Your task to perform on an android device: clear history in the chrome app Image 0: 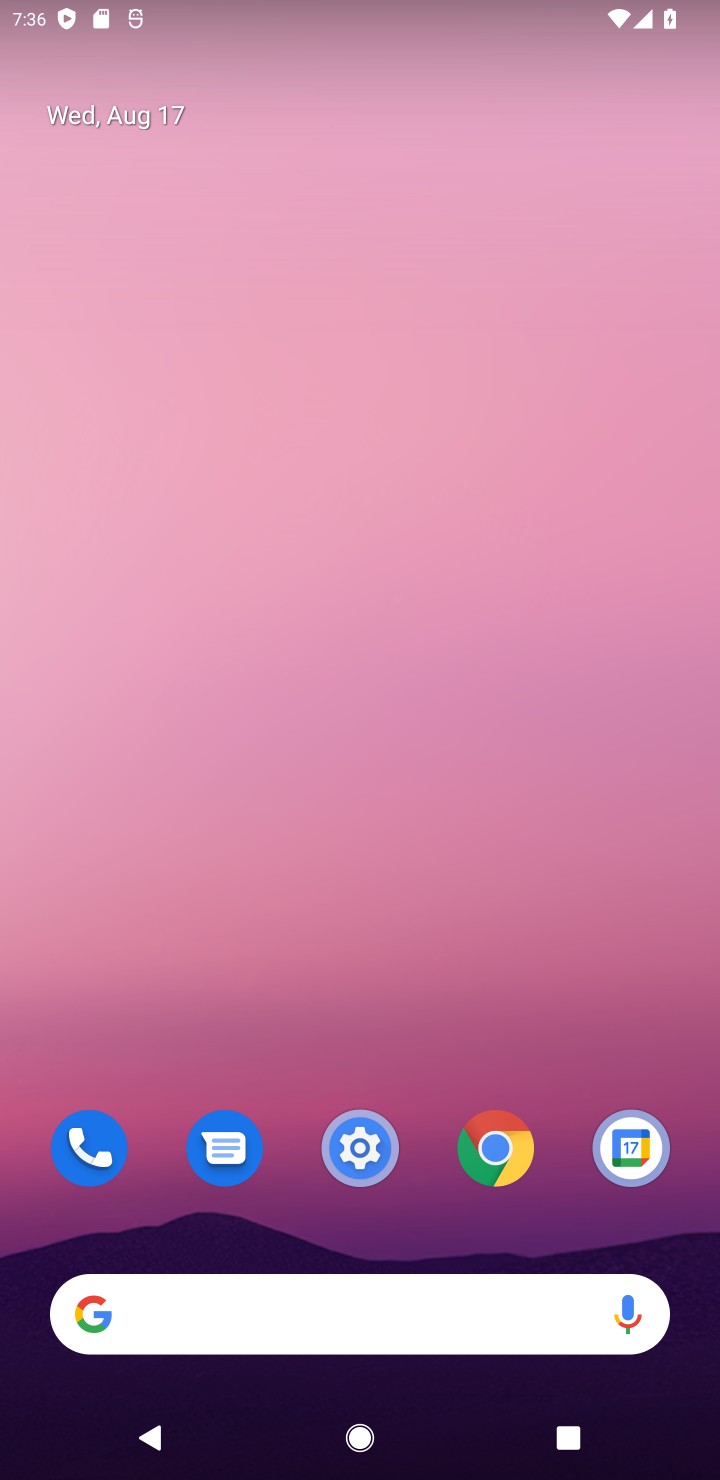
Step 0: drag from (302, 1150) to (302, 182)
Your task to perform on an android device: clear history in the chrome app Image 1: 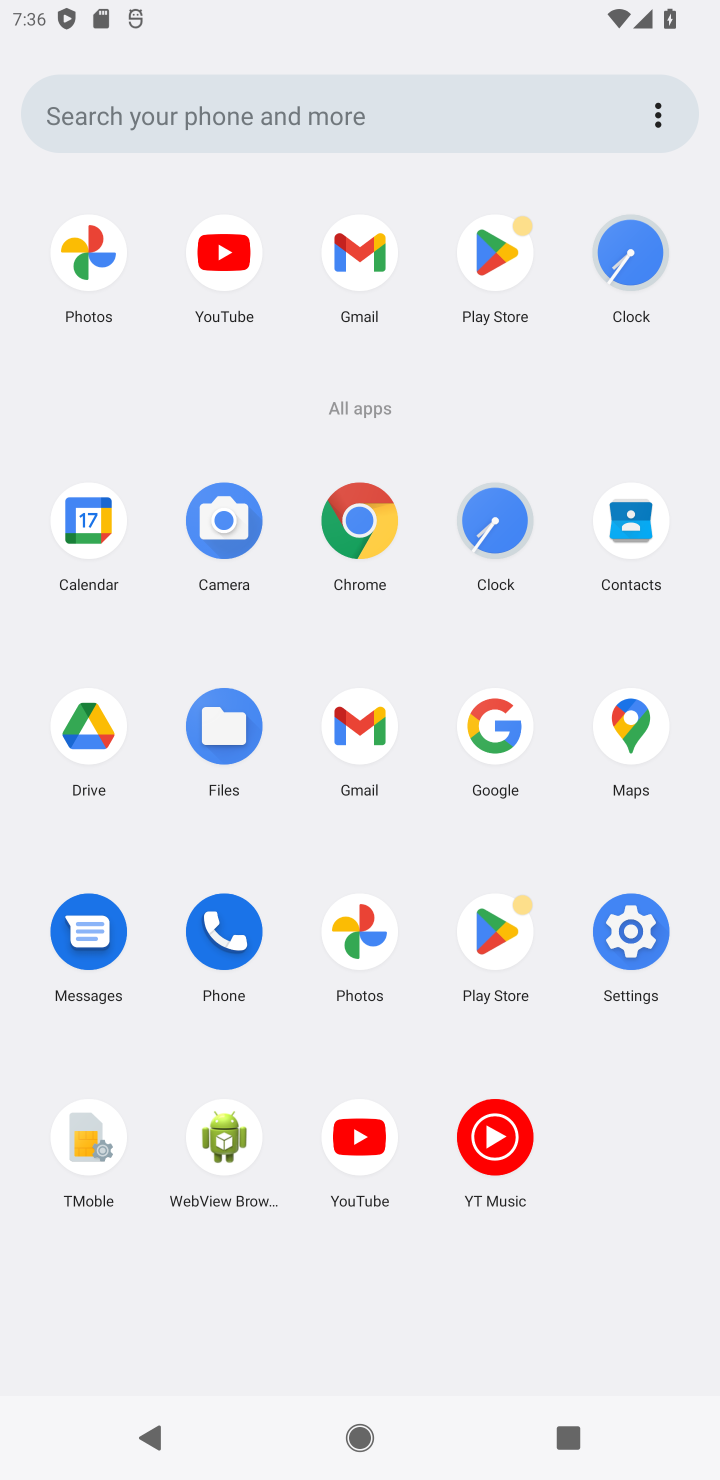
Step 1: click (355, 528)
Your task to perform on an android device: clear history in the chrome app Image 2: 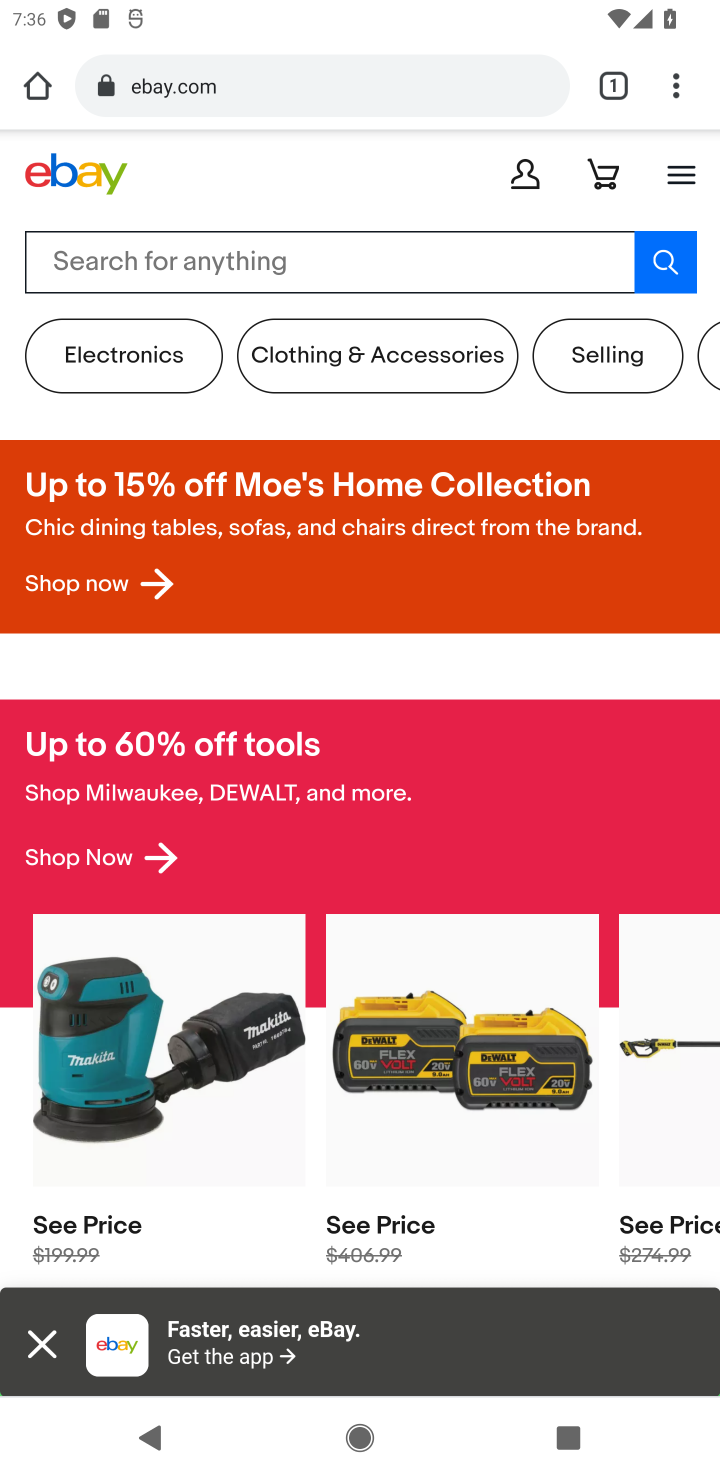
Step 2: click (678, 89)
Your task to perform on an android device: clear history in the chrome app Image 3: 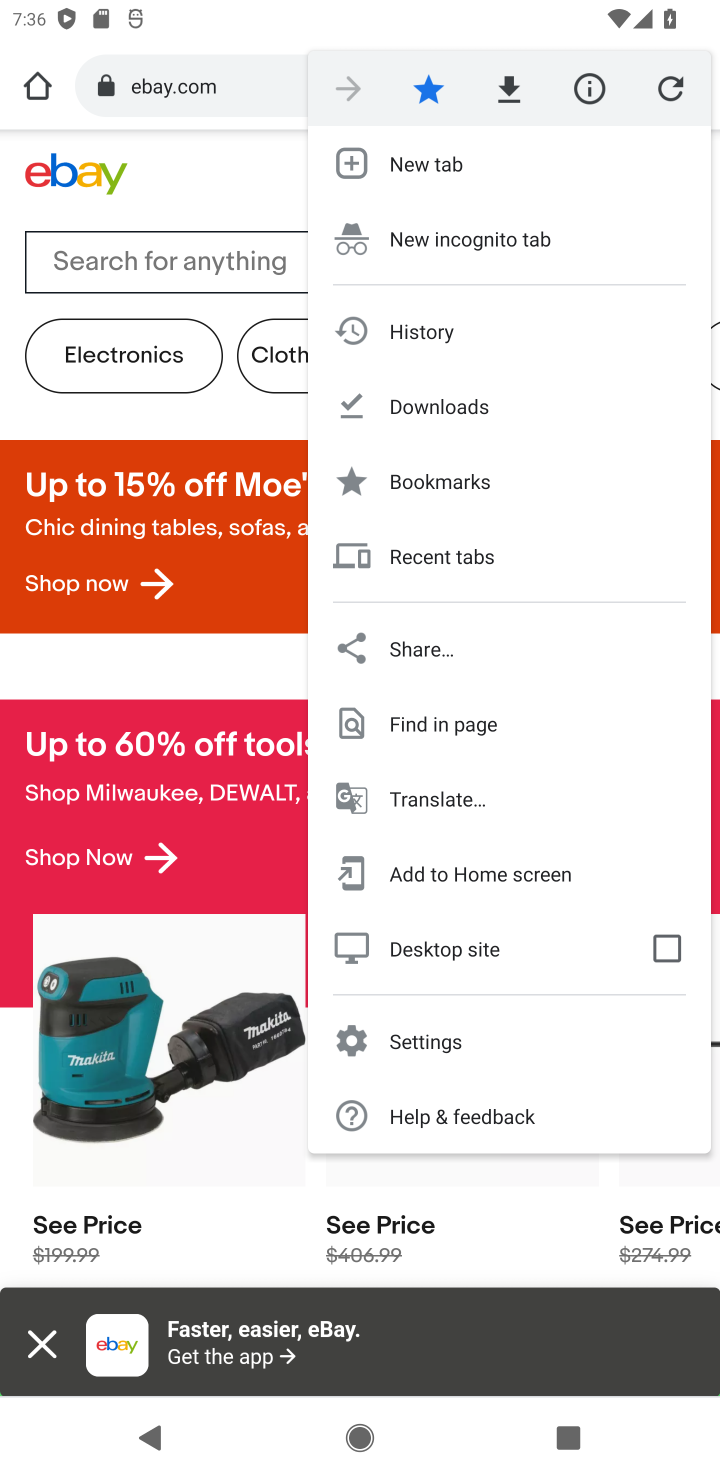
Step 3: click (427, 338)
Your task to perform on an android device: clear history in the chrome app Image 4: 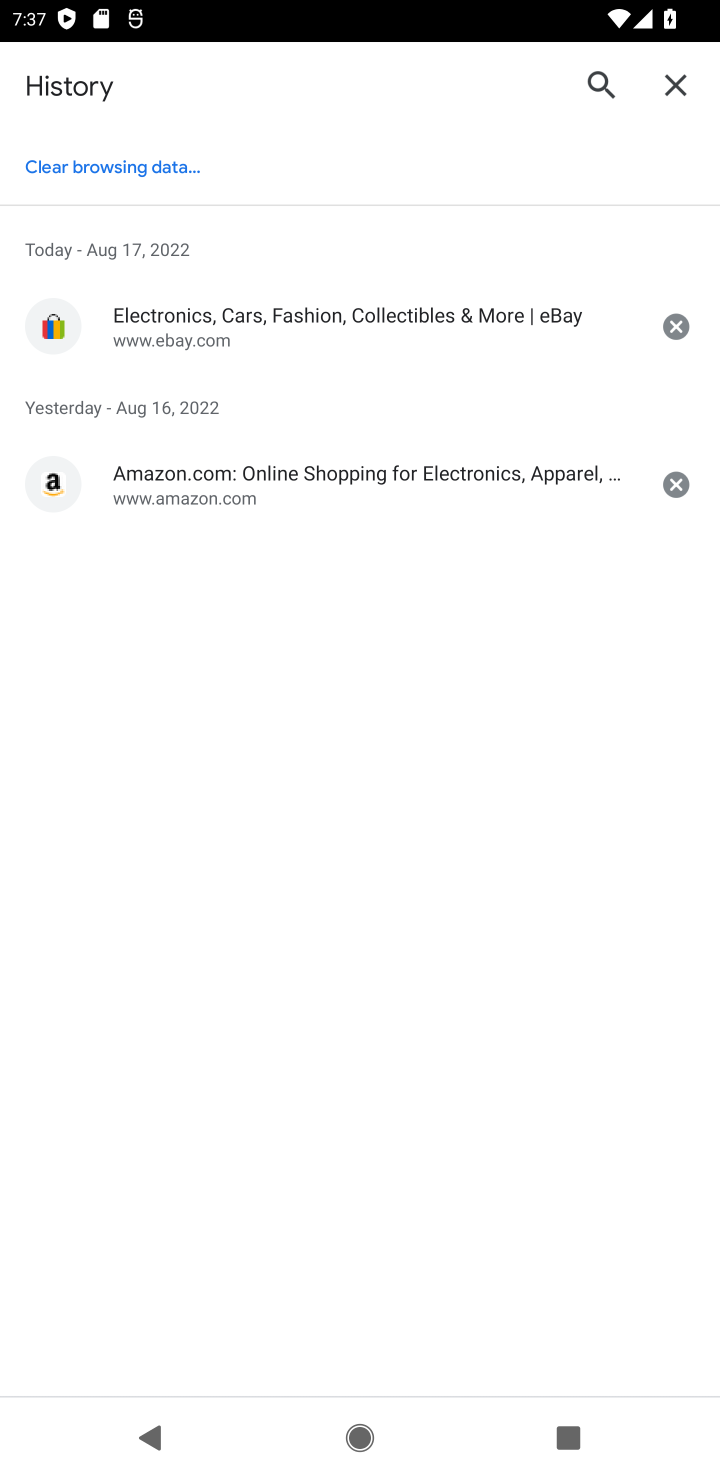
Step 4: click (40, 168)
Your task to perform on an android device: clear history in the chrome app Image 5: 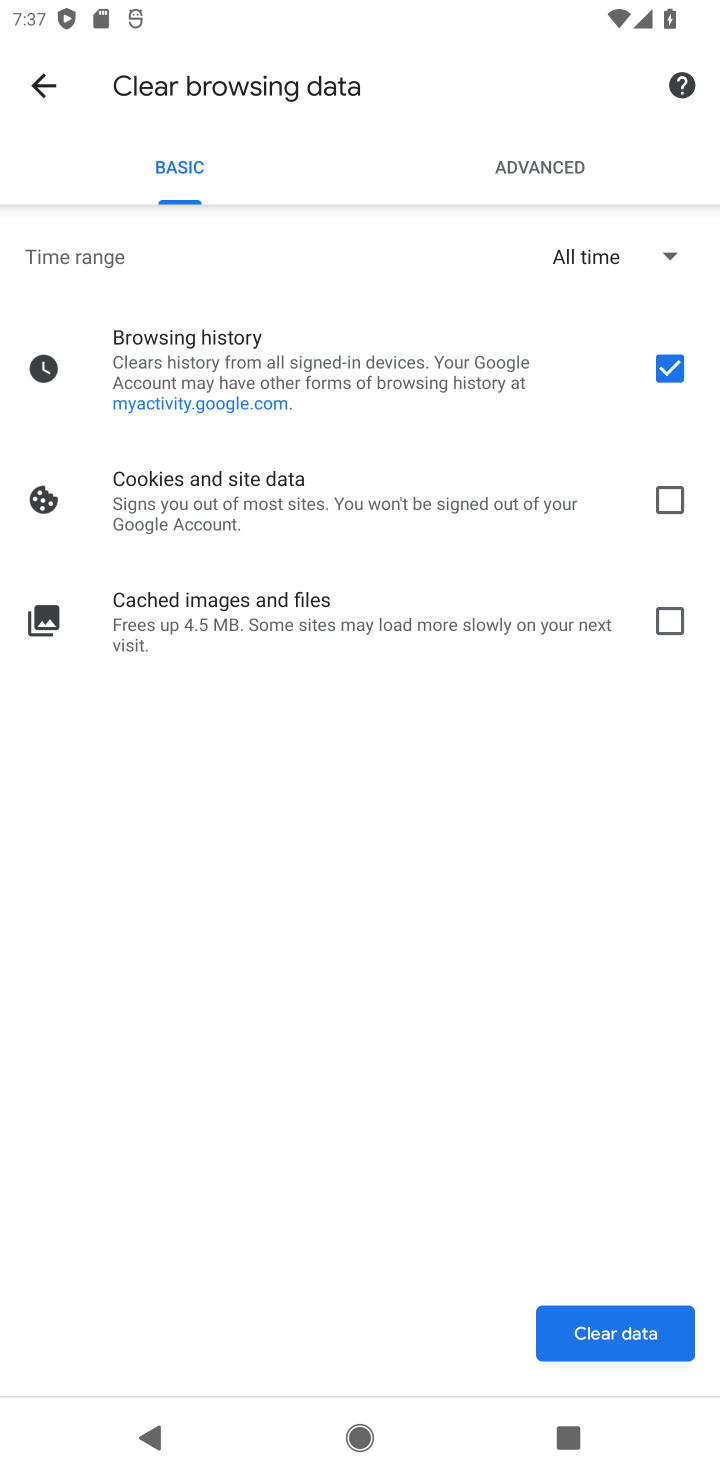
Step 5: click (664, 623)
Your task to perform on an android device: clear history in the chrome app Image 6: 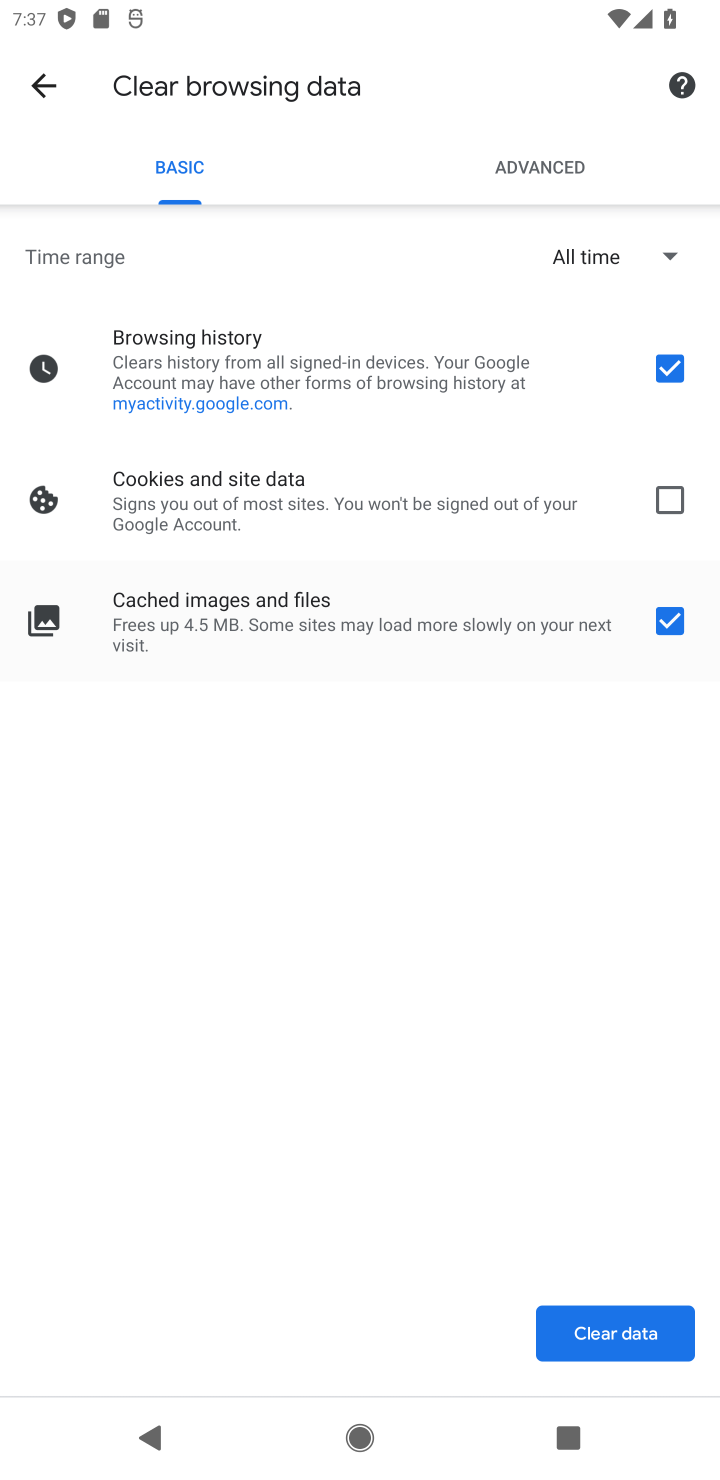
Step 6: click (656, 498)
Your task to perform on an android device: clear history in the chrome app Image 7: 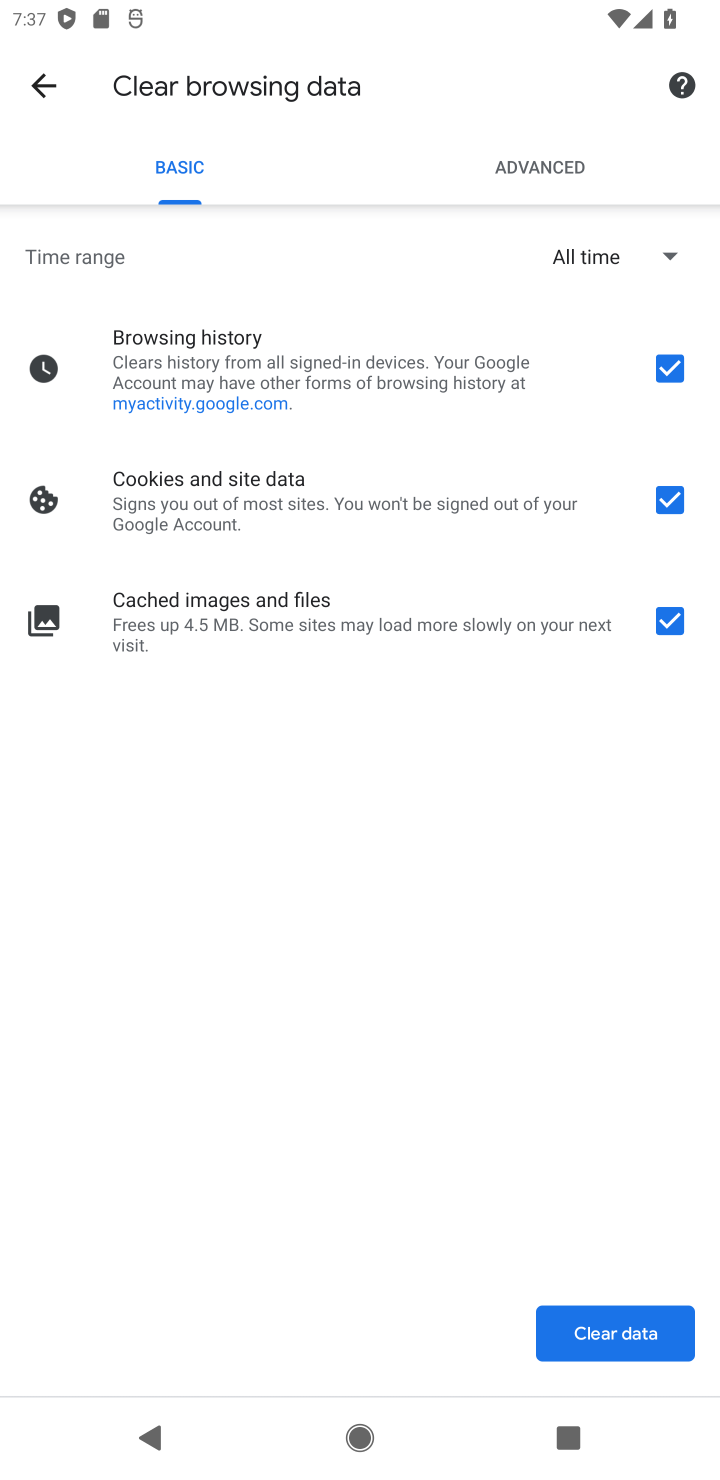
Step 7: click (604, 1342)
Your task to perform on an android device: clear history in the chrome app Image 8: 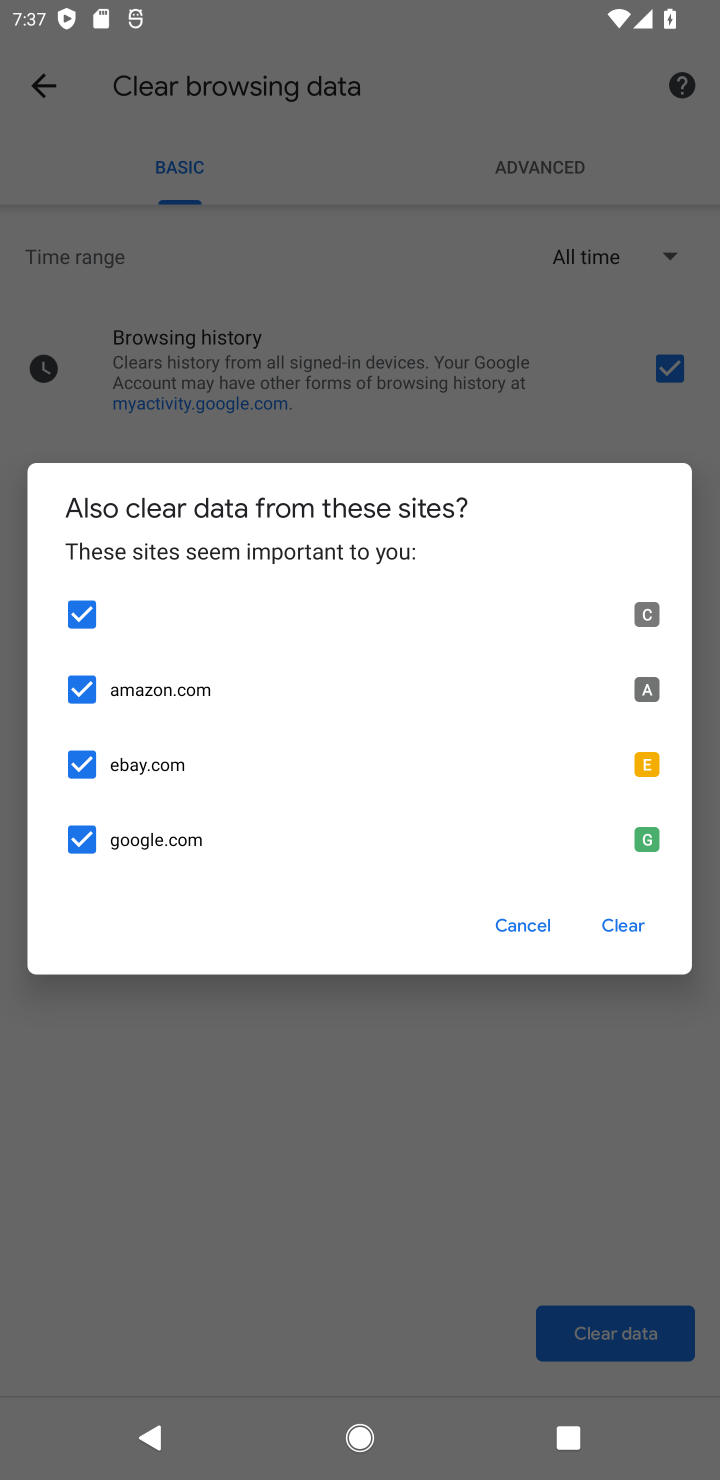
Step 8: click (627, 919)
Your task to perform on an android device: clear history in the chrome app Image 9: 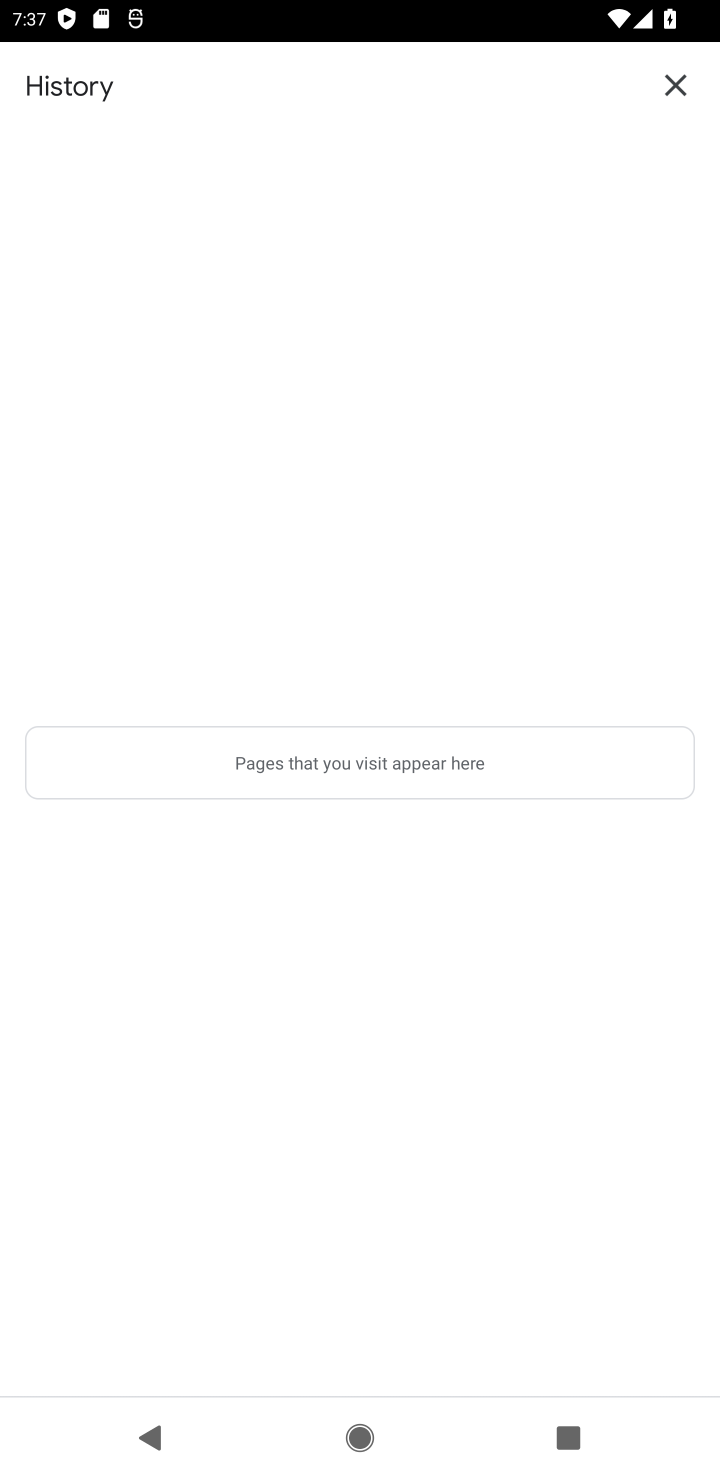
Step 9: task complete